Your task to perform on an android device: turn off improve location accuracy Image 0: 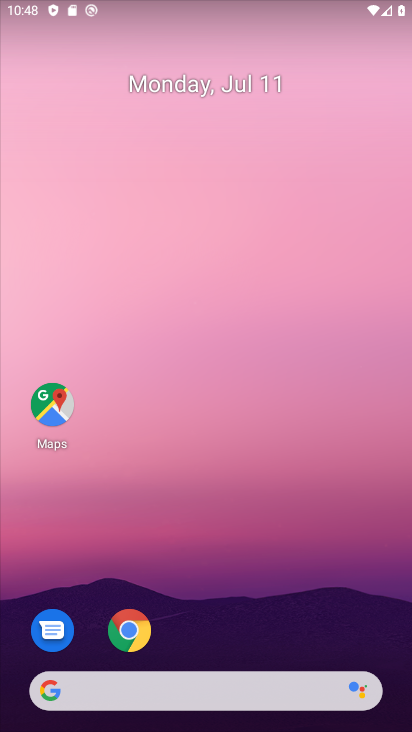
Step 0: drag from (237, 623) to (313, 36)
Your task to perform on an android device: turn off improve location accuracy Image 1: 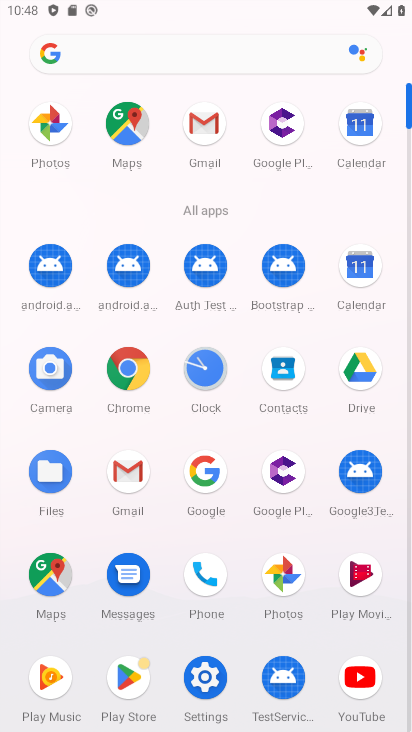
Step 1: click (204, 677)
Your task to perform on an android device: turn off improve location accuracy Image 2: 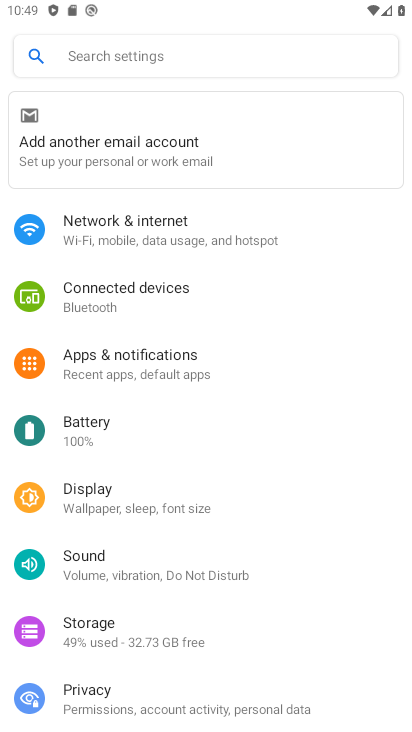
Step 2: drag from (148, 610) to (160, 425)
Your task to perform on an android device: turn off improve location accuracy Image 3: 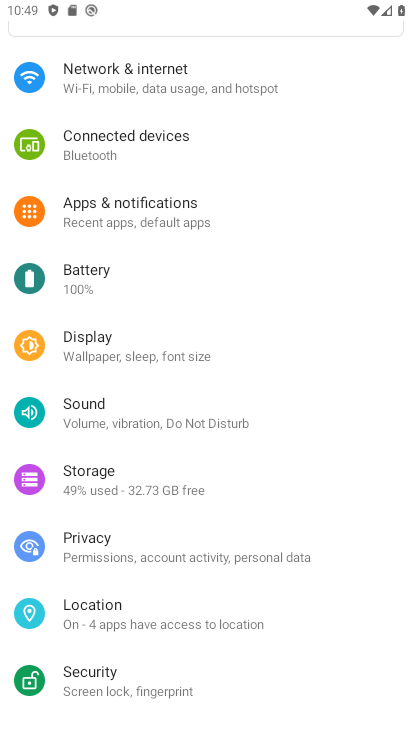
Step 3: click (108, 616)
Your task to perform on an android device: turn off improve location accuracy Image 4: 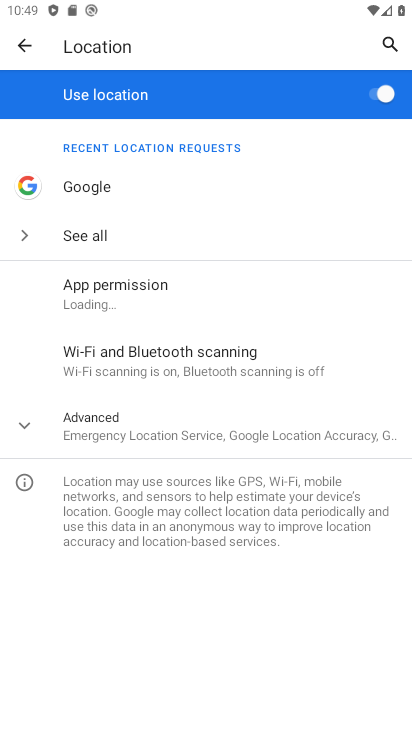
Step 4: click (173, 432)
Your task to perform on an android device: turn off improve location accuracy Image 5: 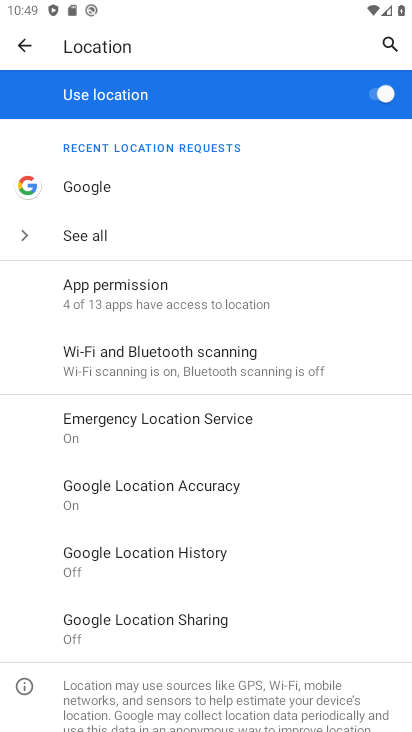
Step 5: click (209, 490)
Your task to perform on an android device: turn off improve location accuracy Image 6: 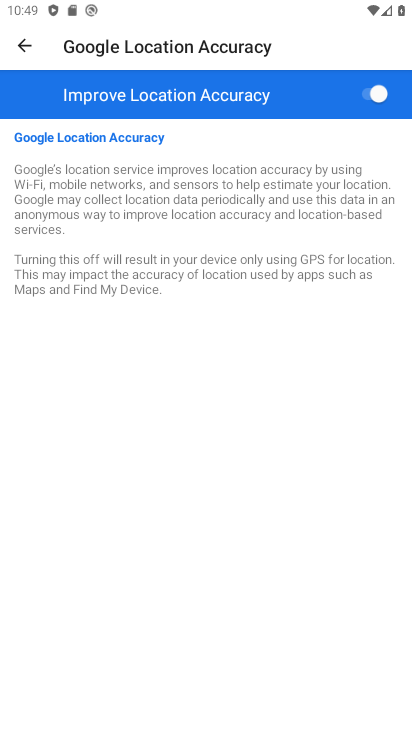
Step 6: click (358, 98)
Your task to perform on an android device: turn off improve location accuracy Image 7: 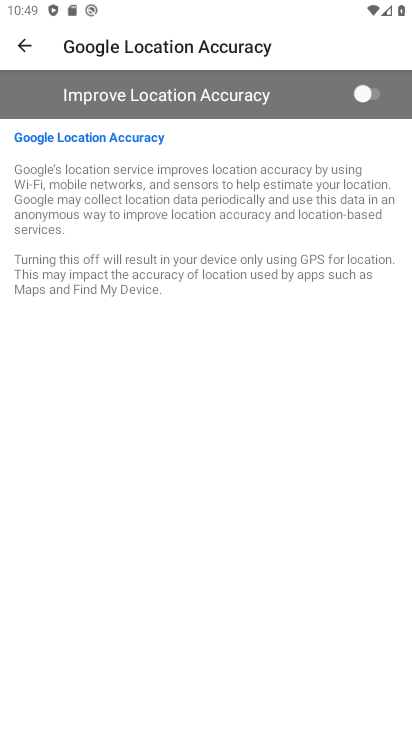
Step 7: task complete